Your task to perform on an android device: Go to Wikipedia Image 0: 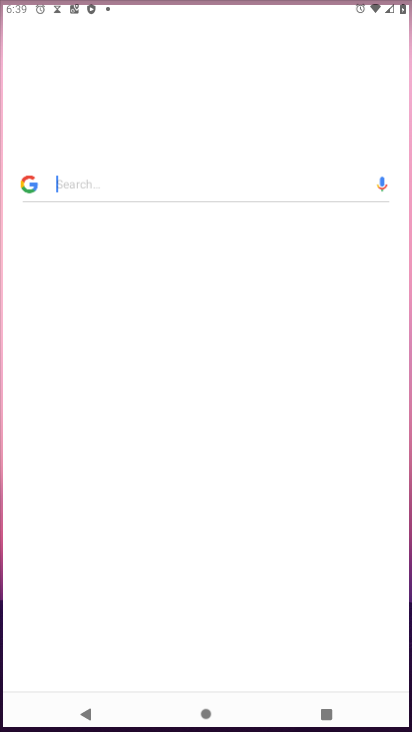
Step 0: press home button
Your task to perform on an android device: Go to Wikipedia Image 1: 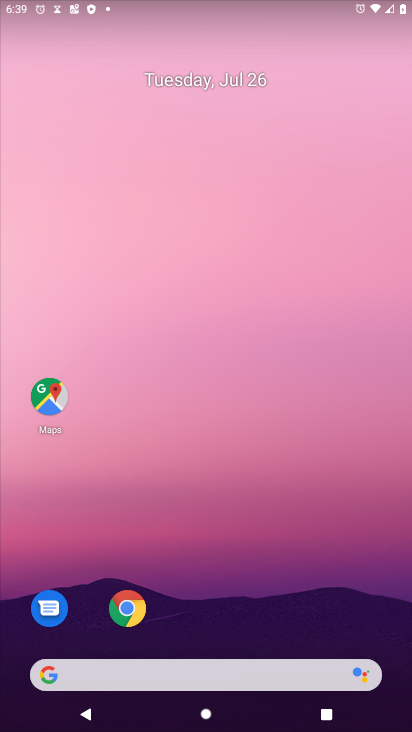
Step 1: click (39, 684)
Your task to perform on an android device: Go to Wikipedia Image 2: 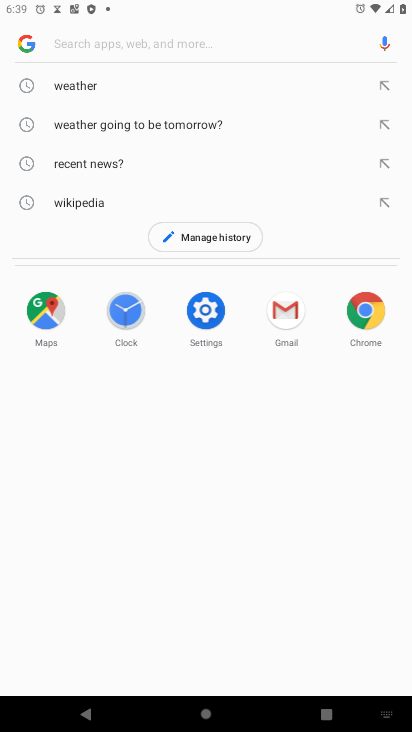
Step 2: click (69, 200)
Your task to perform on an android device: Go to Wikipedia Image 3: 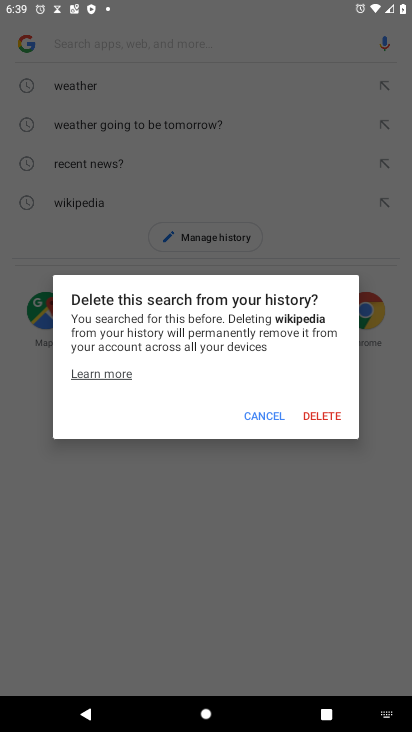
Step 3: click (271, 415)
Your task to perform on an android device: Go to Wikipedia Image 4: 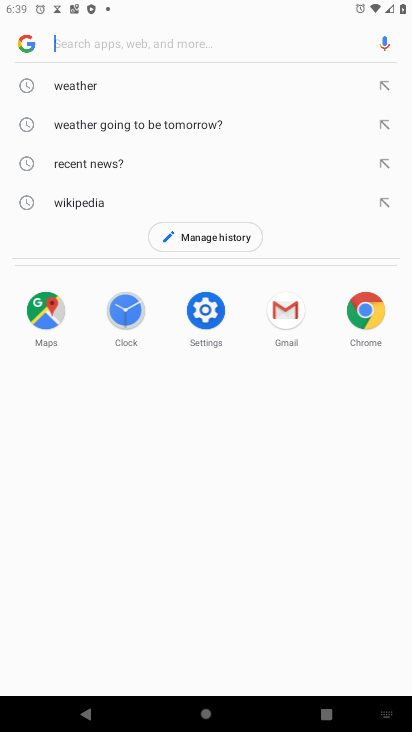
Step 4: click (81, 196)
Your task to perform on an android device: Go to Wikipedia Image 5: 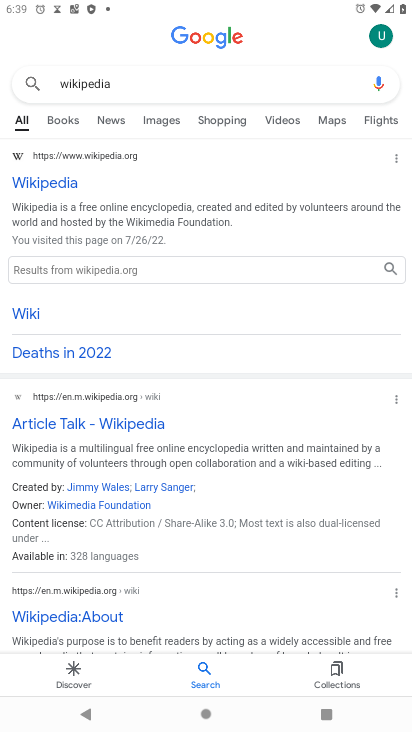
Step 5: click (62, 189)
Your task to perform on an android device: Go to Wikipedia Image 6: 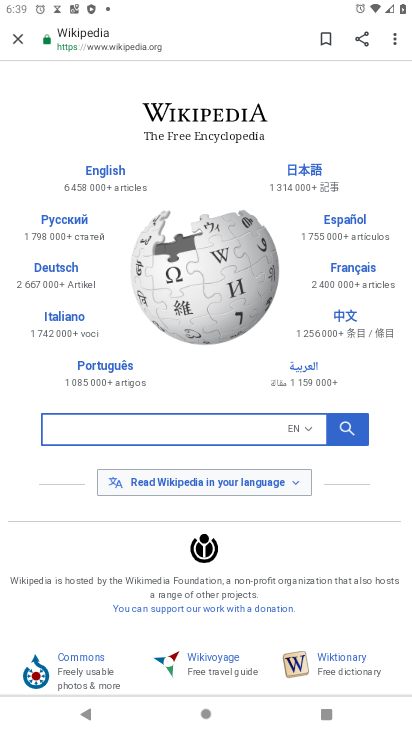
Step 6: task complete